Your task to perform on an android device: turn on airplane mode Image 0: 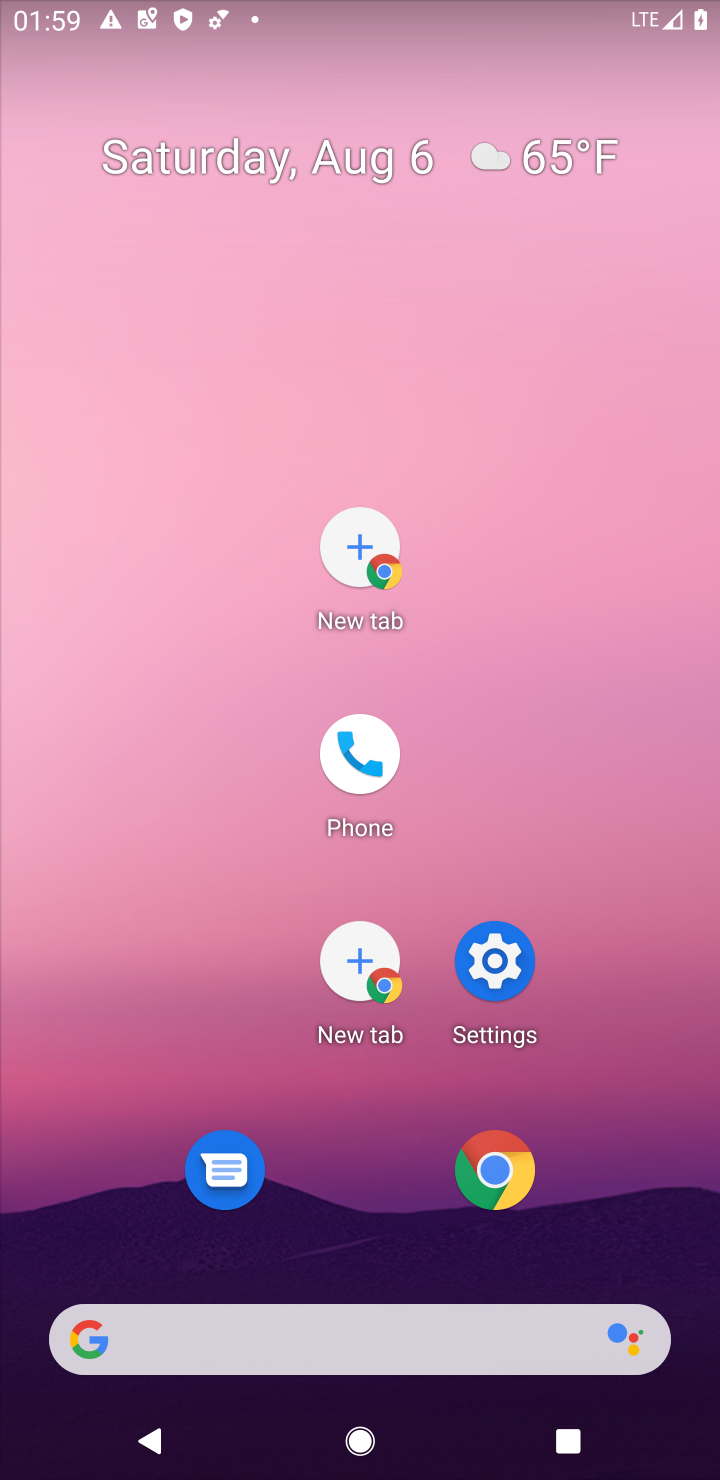
Step 0: click (500, 964)
Your task to perform on an android device: turn on airplane mode Image 1: 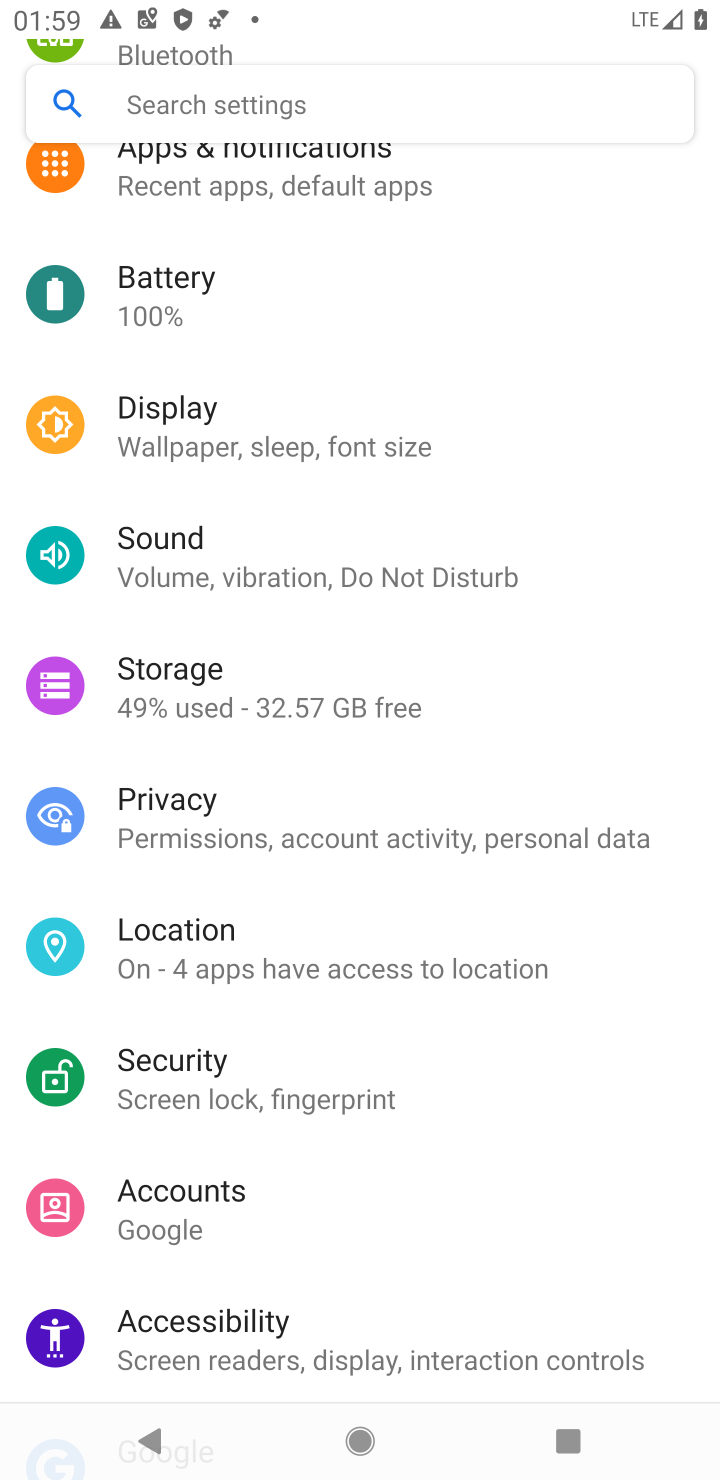
Step 1: click (243, 126)
Your task to perform on an android device: turn on airplane mode Image 2: 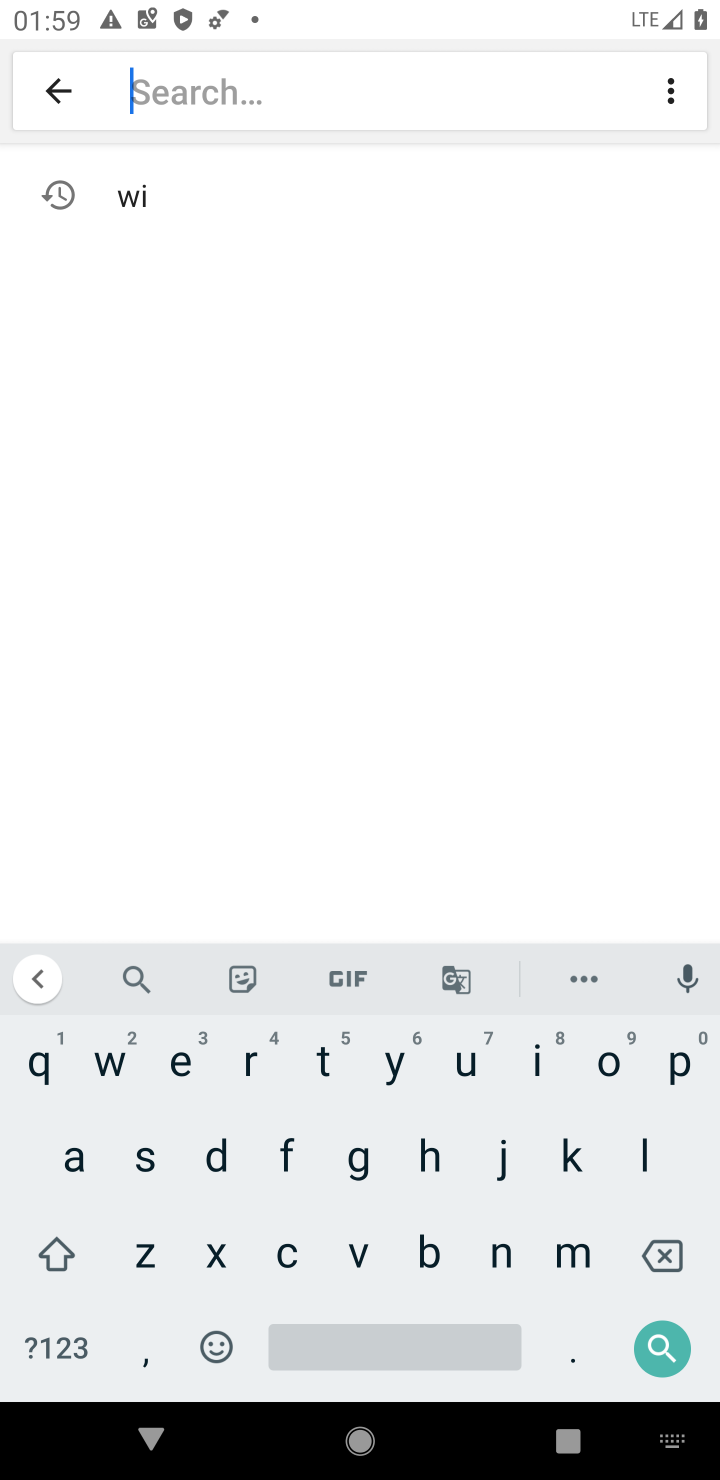
Step 2: click (78, 1166)
Your task to perform on an android device: turn on airplane mode Image 3: 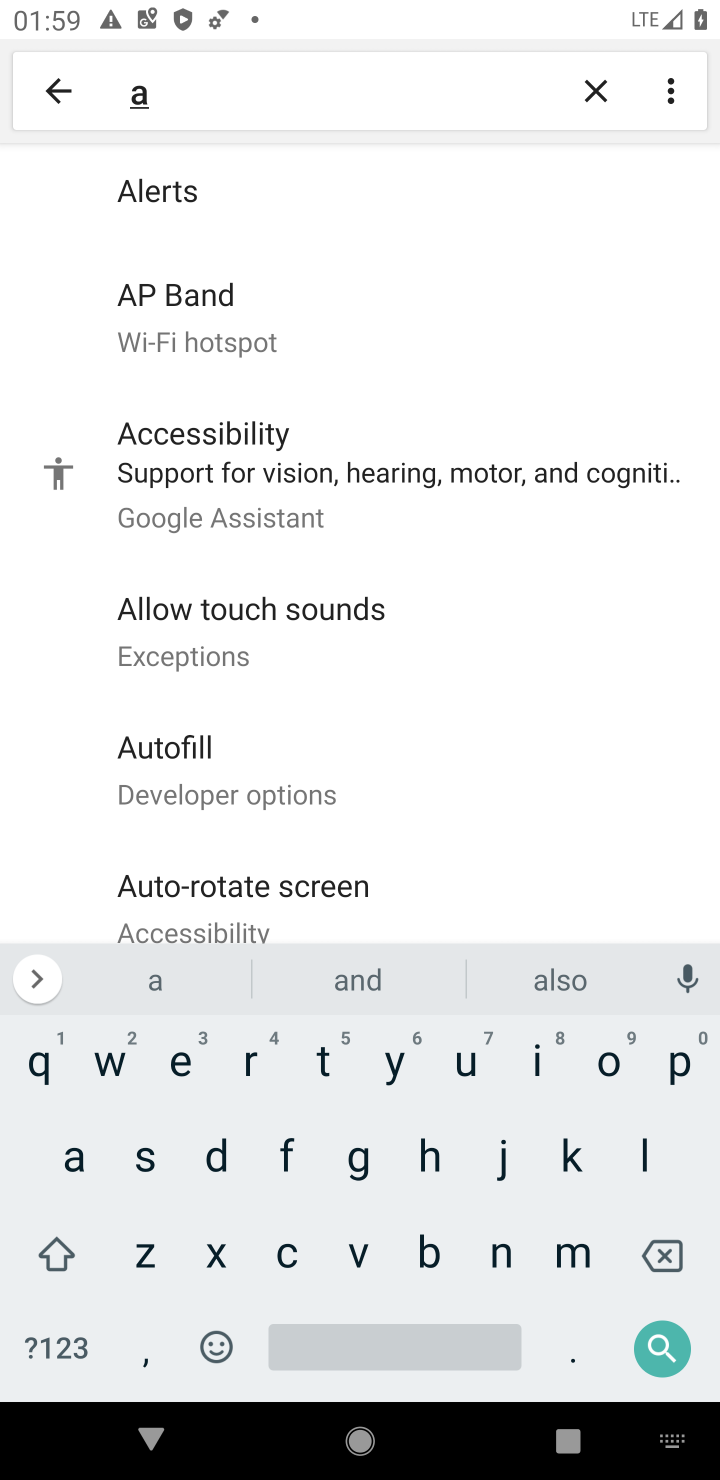
Step 3: click (539, 1046)
Your task to perform on an android device: turn on airplane mode Image 4: 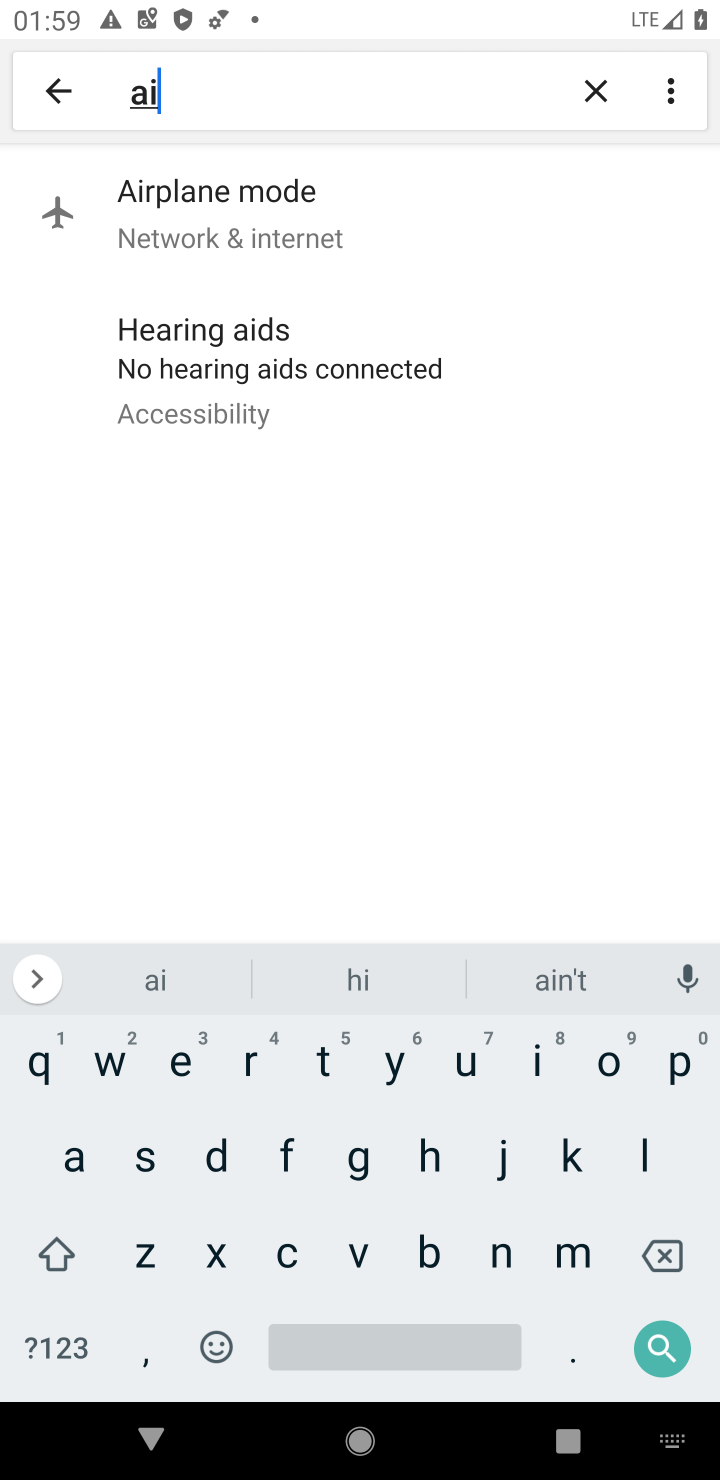
Step 4: click (361, 196)
Your task to perform on an android device: turn on airplane mode Image 5: 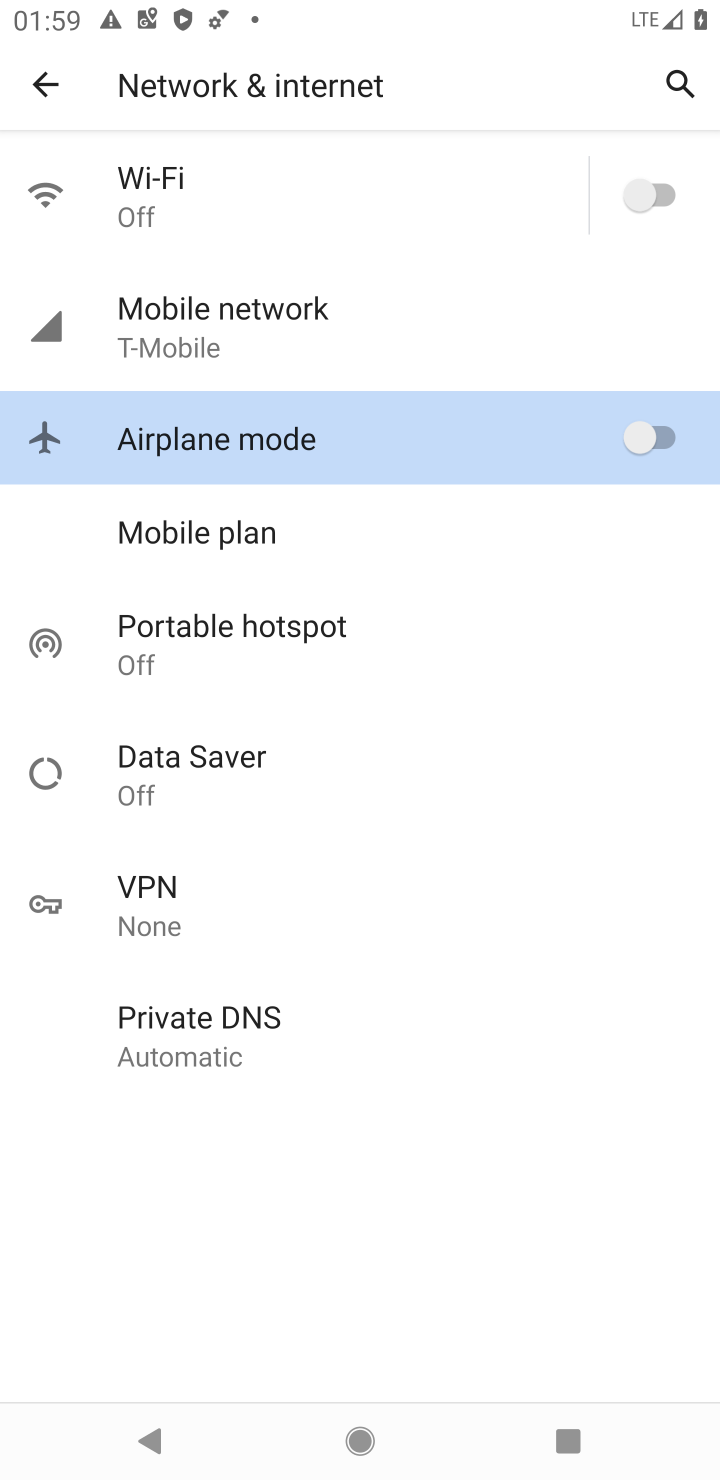
Step 5: click (638, 434)
Your task to perform on an android device: turn on airplane mode Image 6: 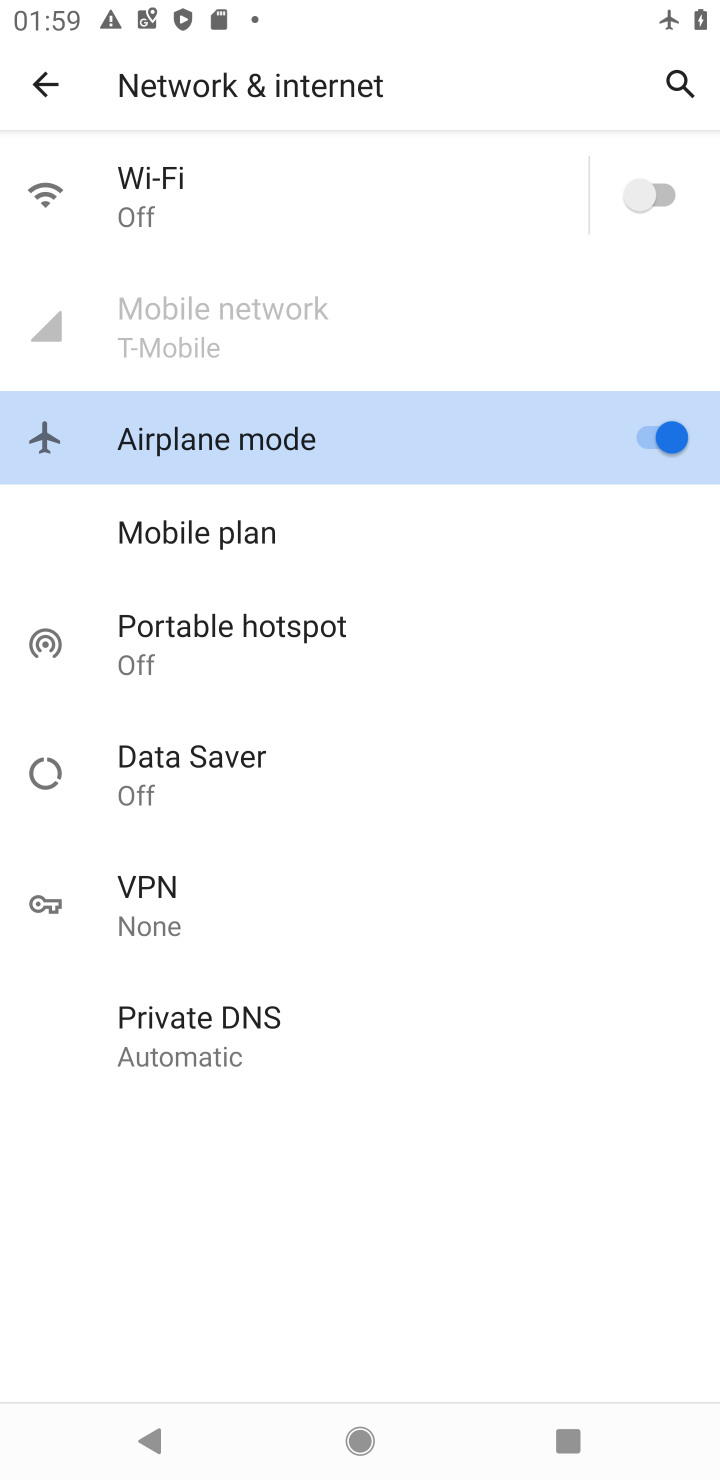
Step 6: task complete